Your task to perform on an android device: Go to privacy settings Image 0: 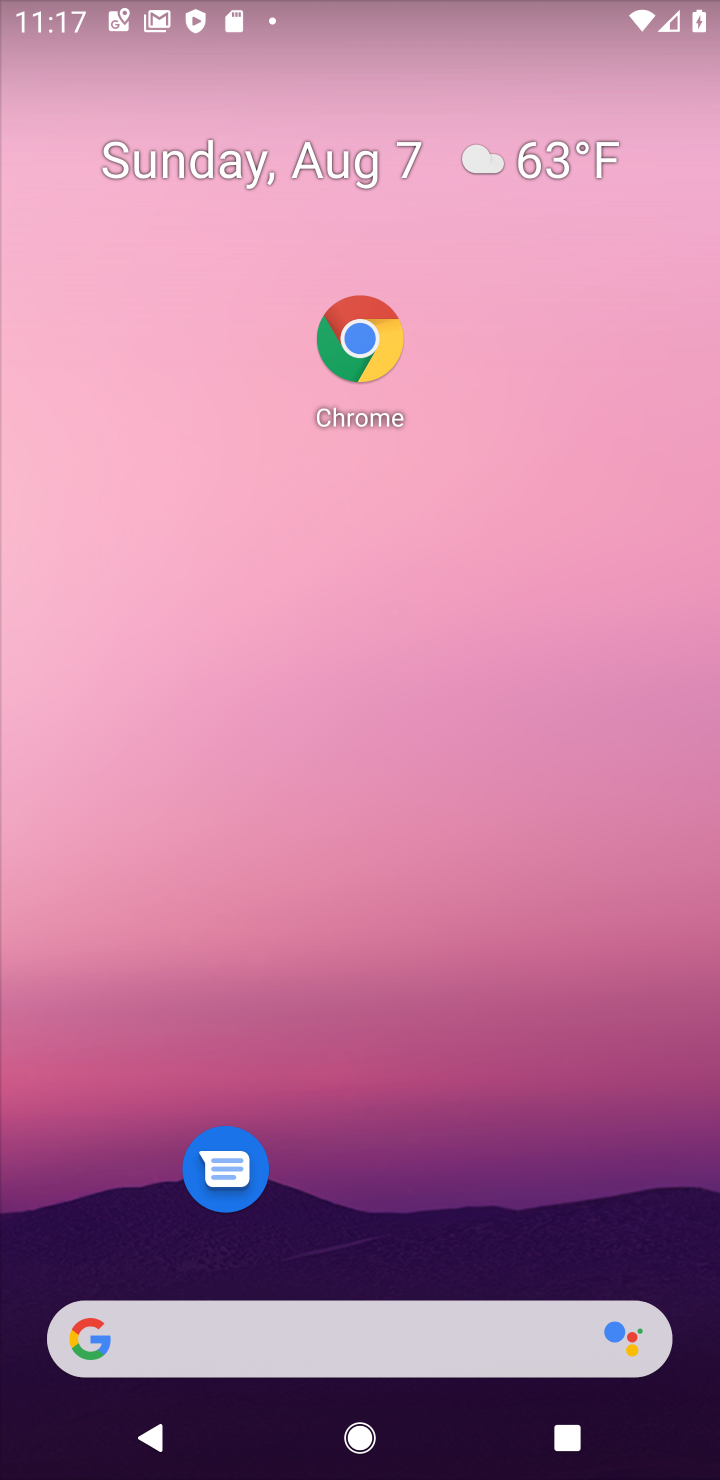
Step 0: drag from (362, 1242) to (702, 929)
Your task to perform on an android device: Go to privacy settings Image 1: 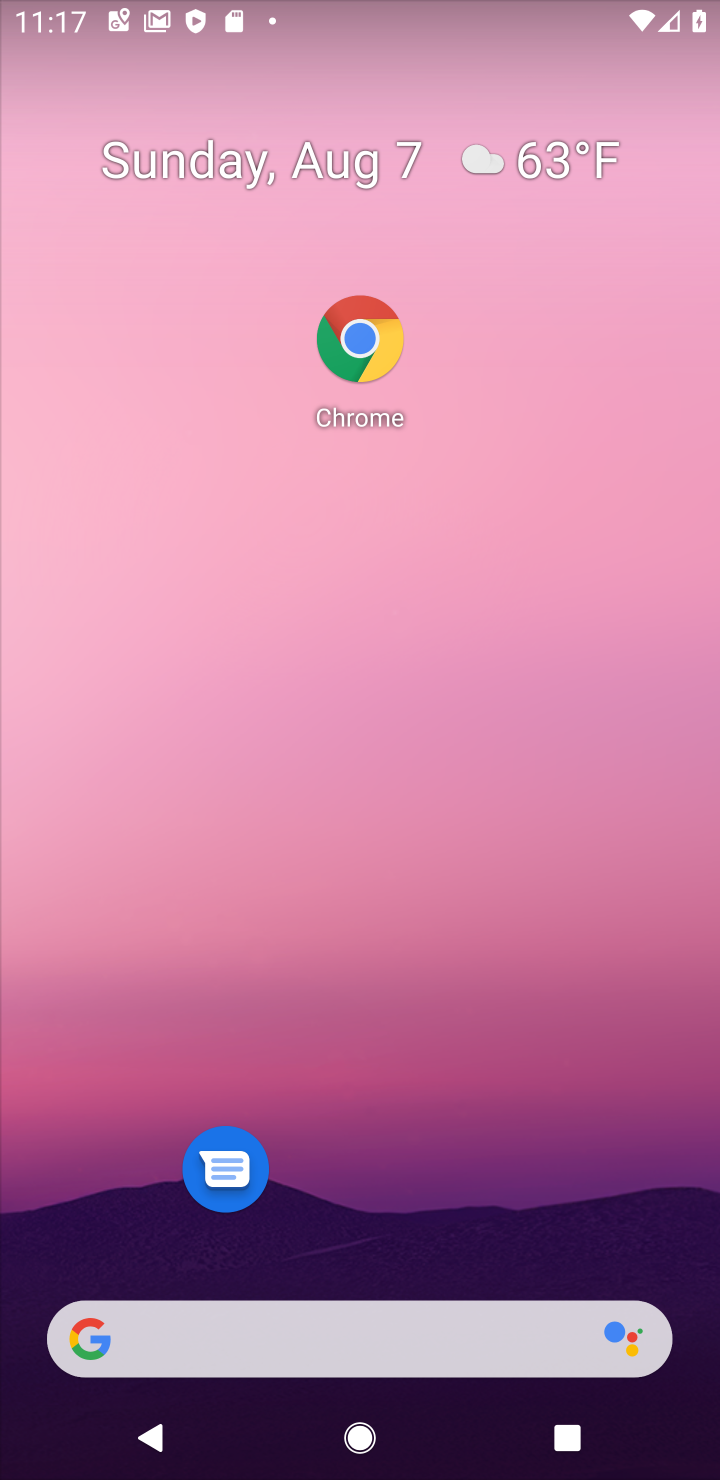
Step 1: click (634, 313)
Your task to perform on an android device: Go to privacy settings Image 2: 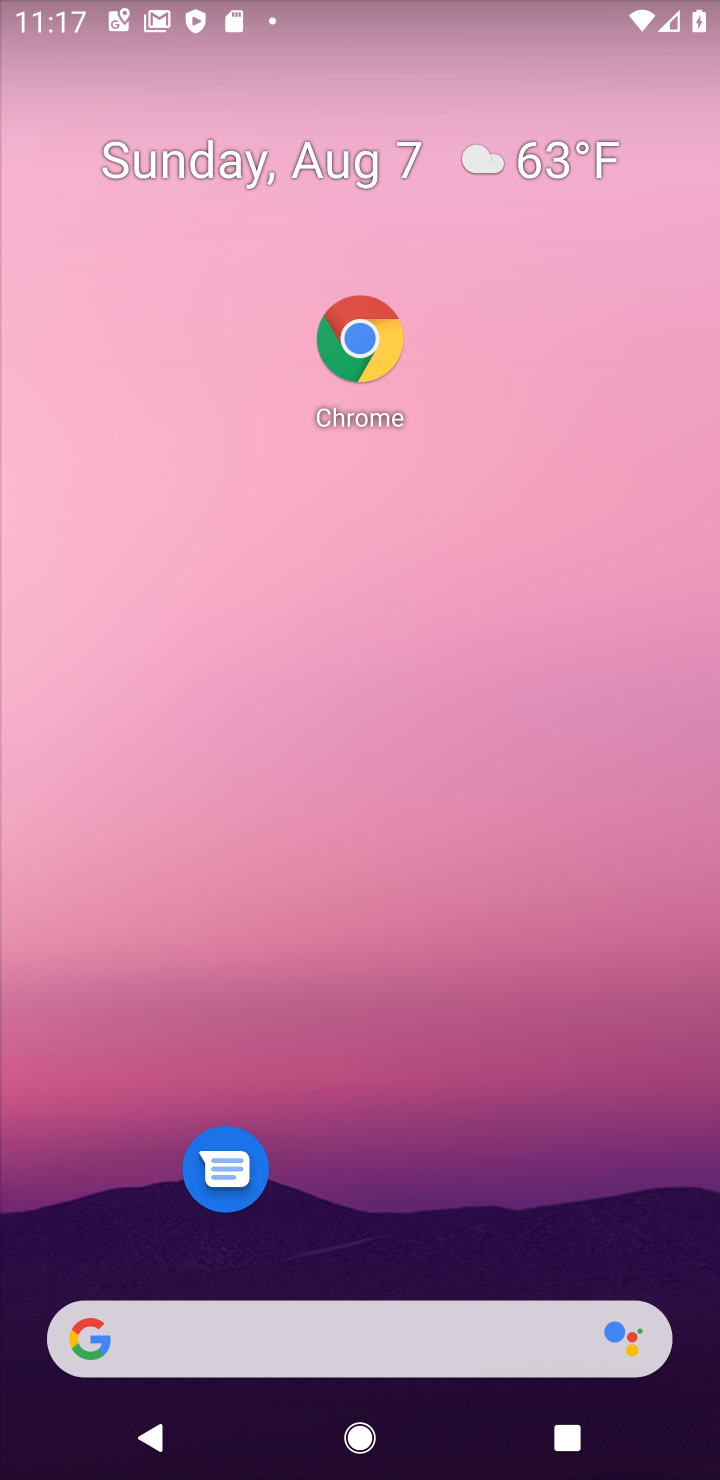
Step 2: drag from (388, 815) to (433, 5)
Your task to perform on an android device: Go to privacy settings Image 3: 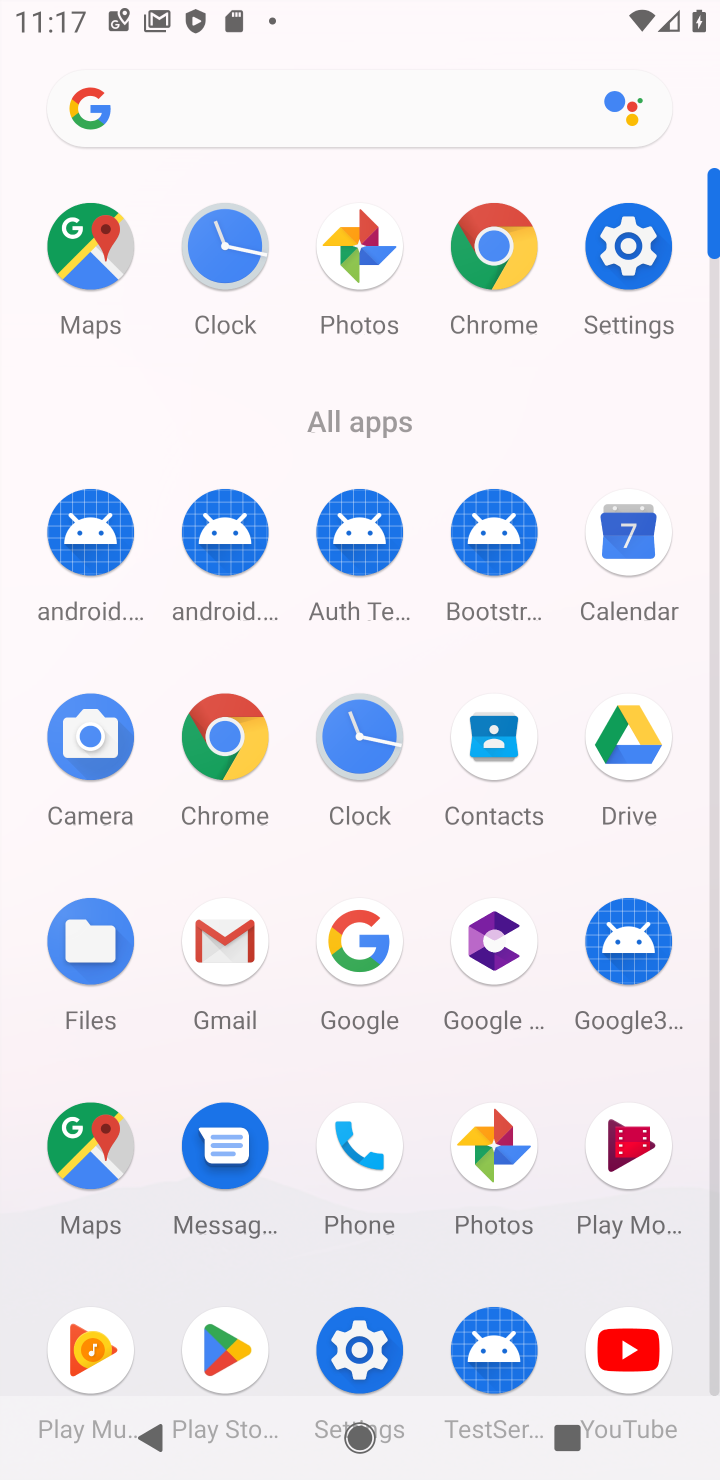
Step 3: click (634, 271)
Your task to perform on an android device: Go to privacy settings Image 4: 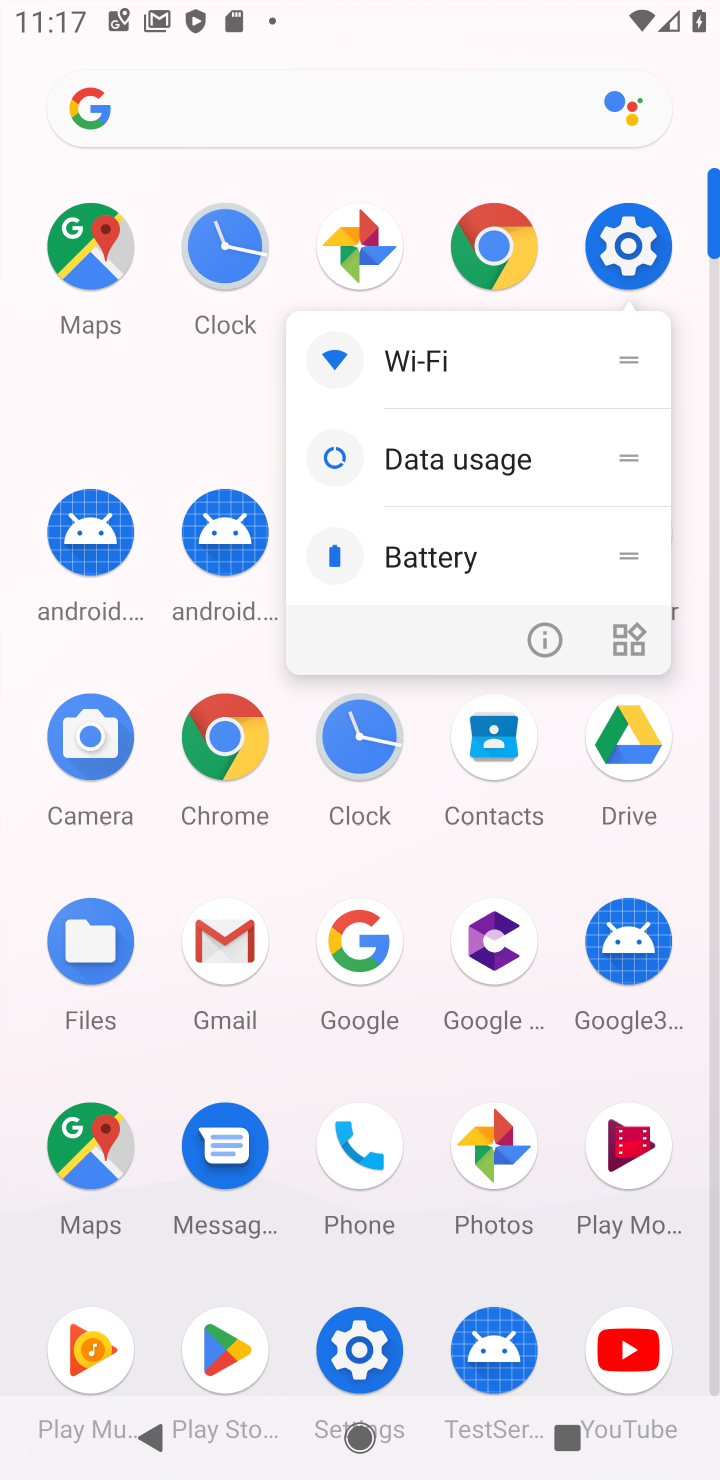
Step 4: click (634, 271)
Your task to perform on an android device: Go to privacy settings Image 5: 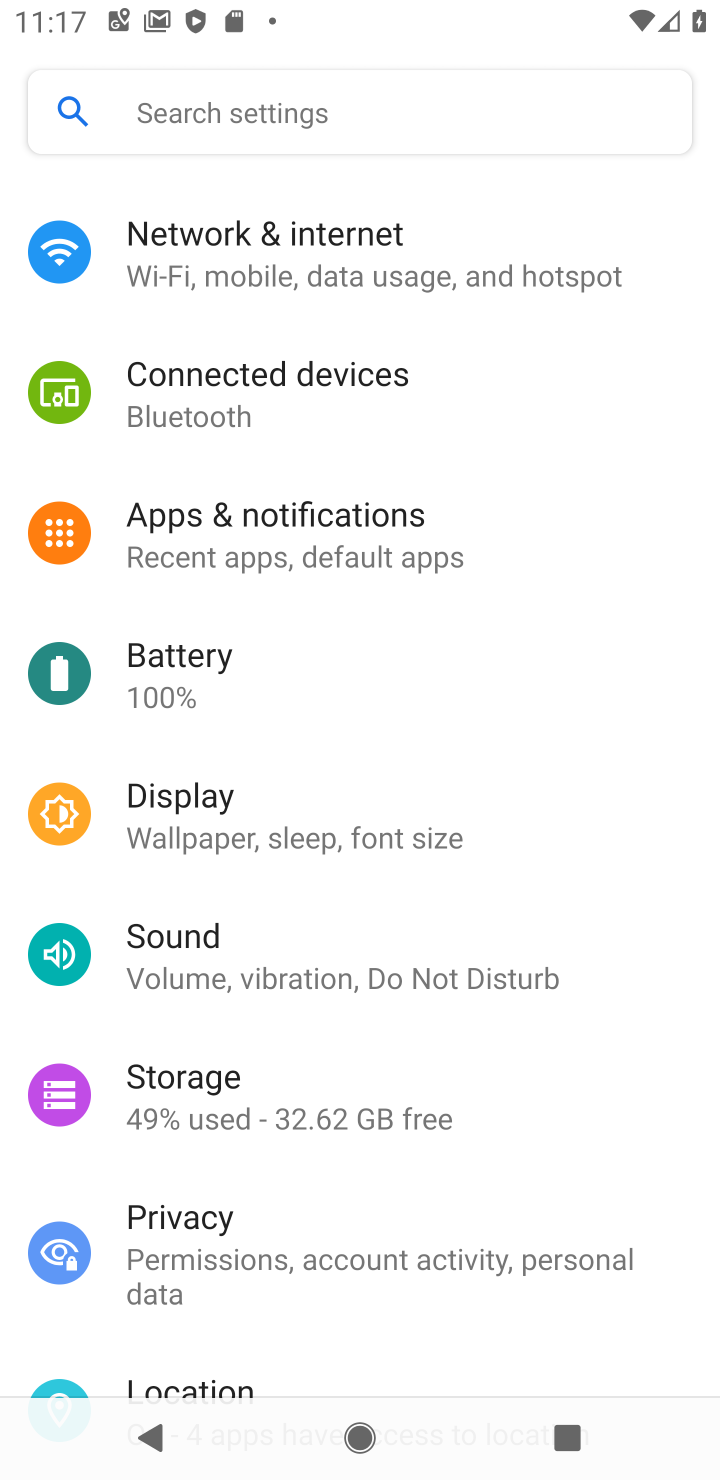
Step 5: click (182, 1194)
Your task to perform on an android device: Go to privacy settings Image 6: 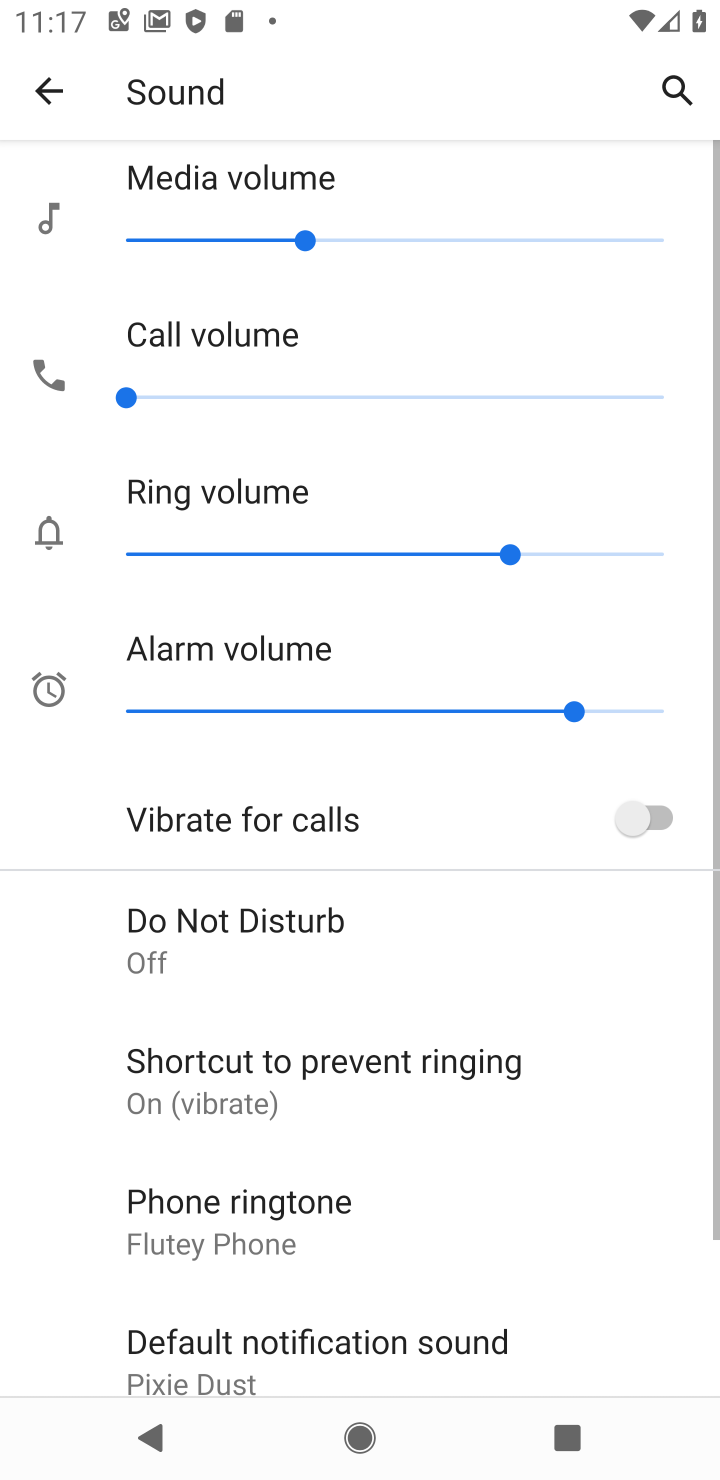
Step 6: click (78, 96)
Your task to perform on an android device: Go to privacy settings Image 7: 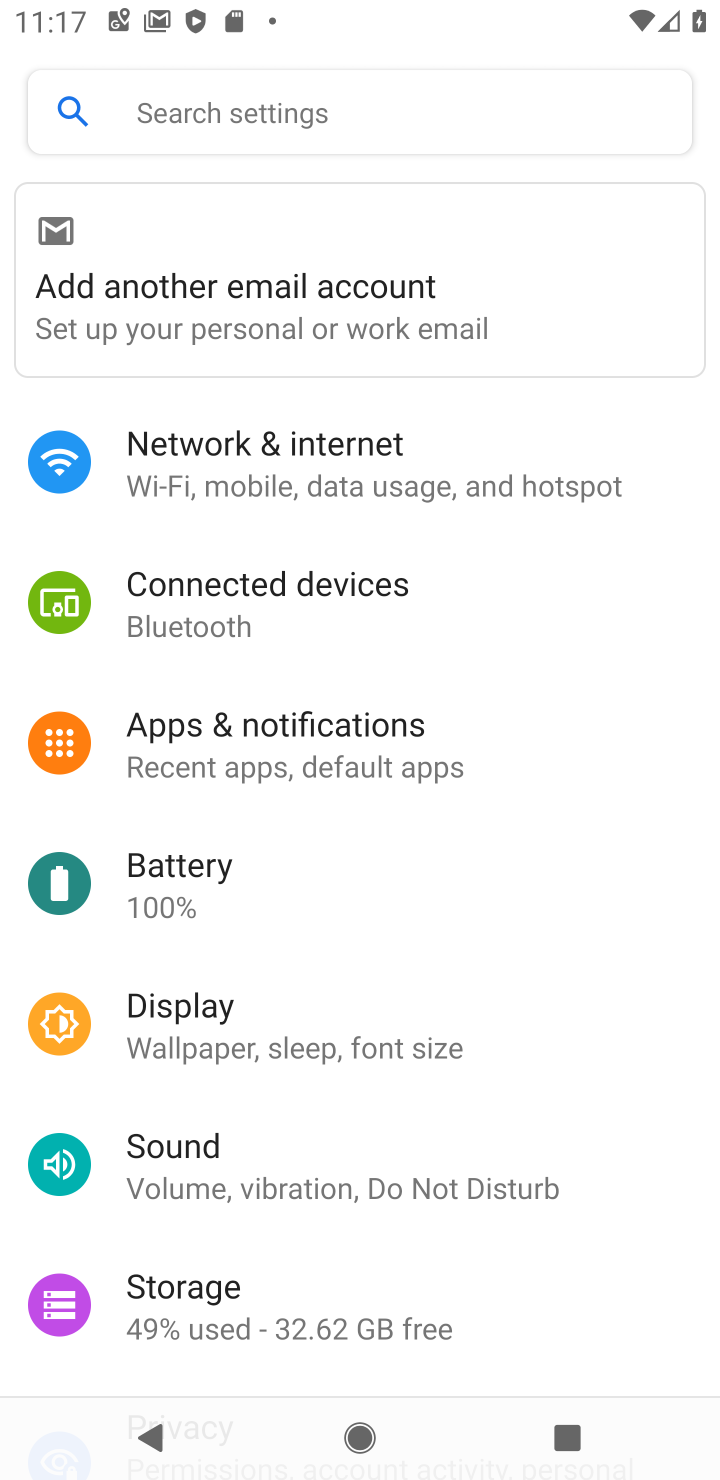
Step 7: drag from (224, 1260) to (86, 107)
Your task to perform on an android device: Go to privacy settings Image 8: 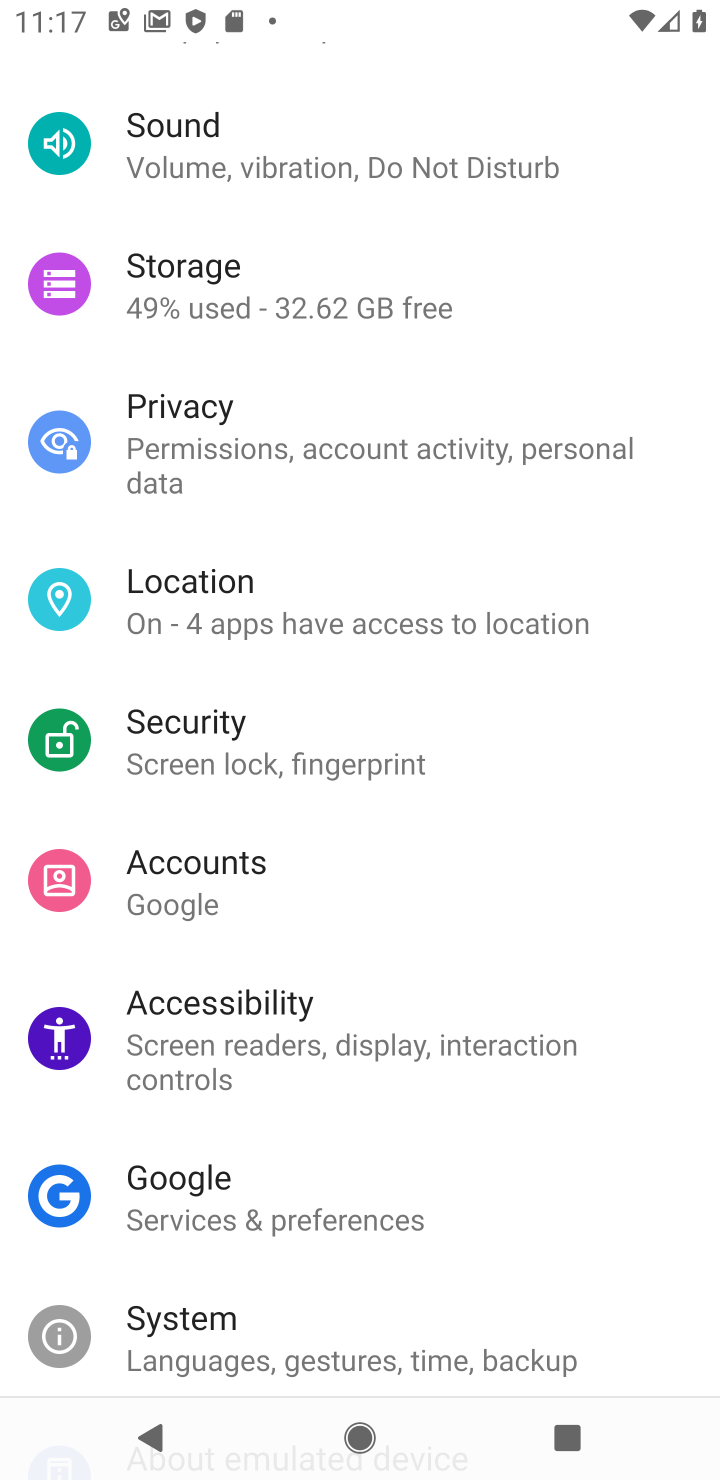
Step 8: click (192, 435)
Your task to perform on an android device: Go to privacy settings Image 9: 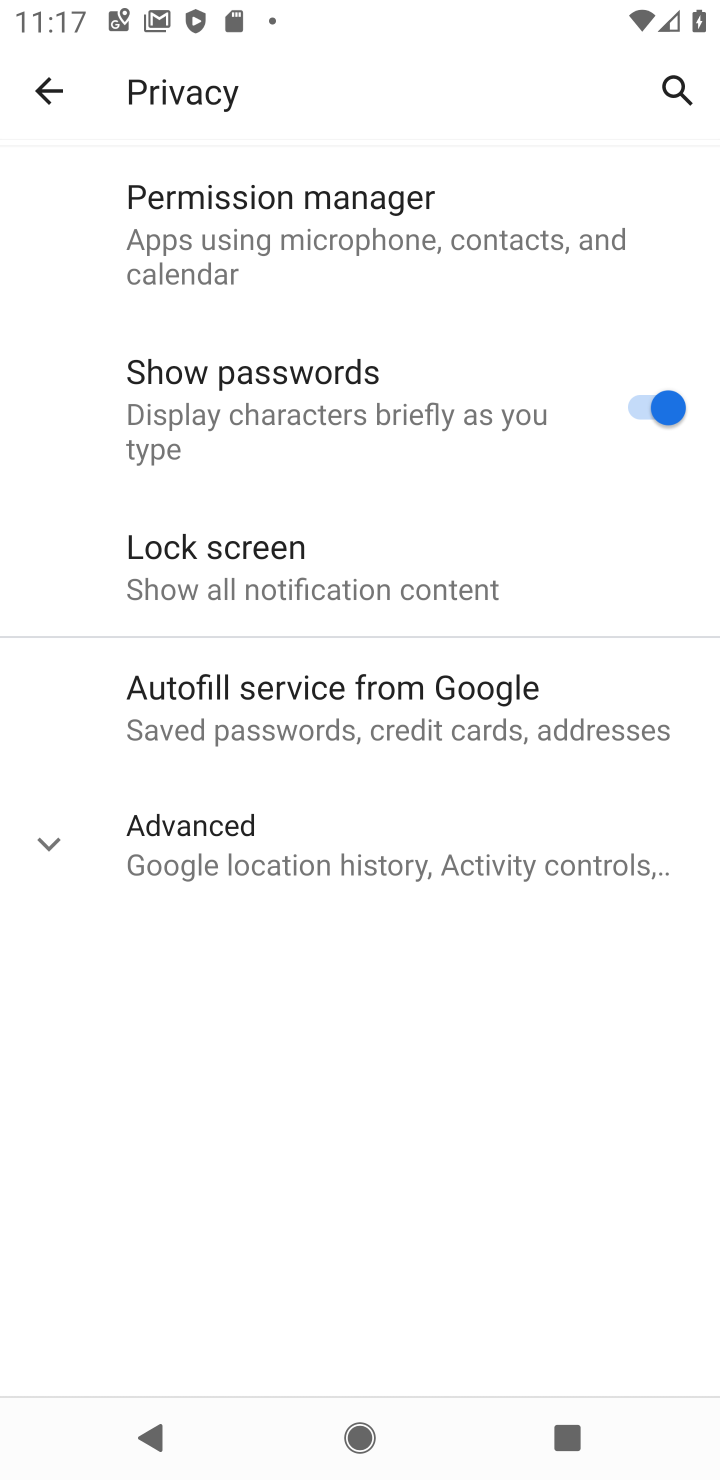
Step 9: task complete